Your task to perform on an android device: Open Youtube and go to the subscriptions tab Image 0: 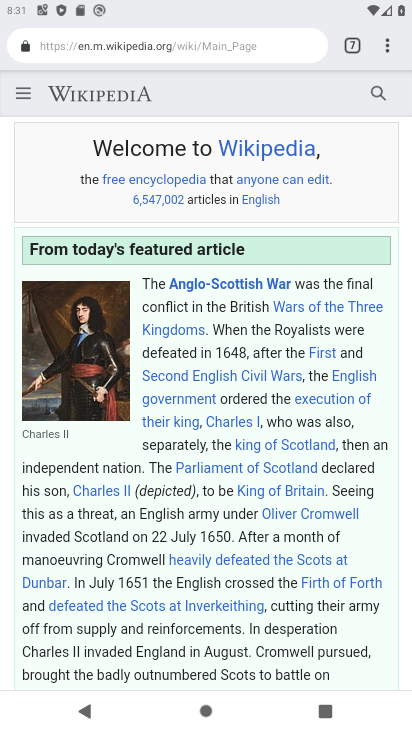
Step 0: press home button
Your task to perform on an android device: Open Youtube and go to the subscriptions tab Image 1: 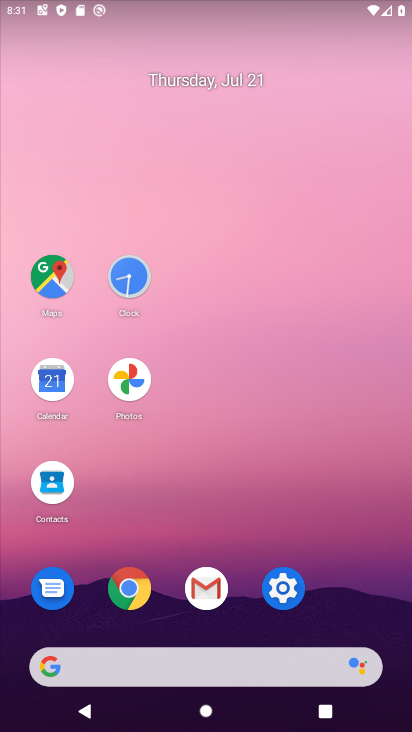
Step 1: drag from (235, 519) to (232, 105)
Your task to perform on an android device: Open Youtube and go to the subscriptions tab Image 2: 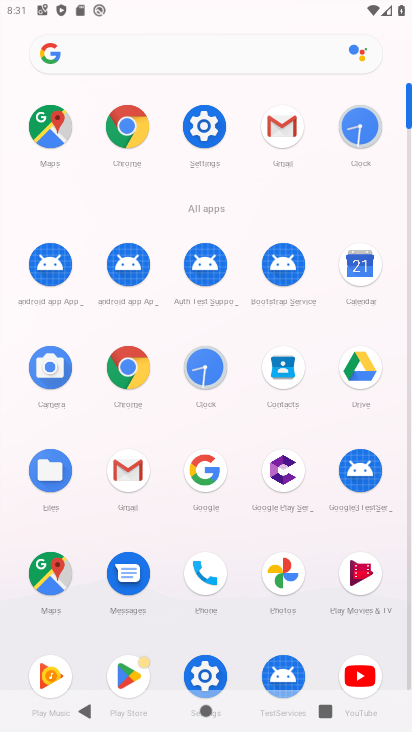
Step 2: click (354, 671)
Your task to perform on an android device: Open Youtube and go to the subscriptions tab Image 3: 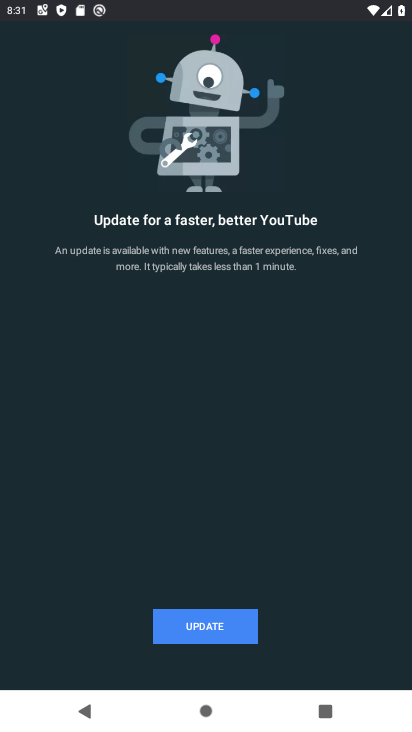
Step 3: click (214, 625)
Your task to perform on an android device: Open Youtube and go to the subscriptions tab Image 4: 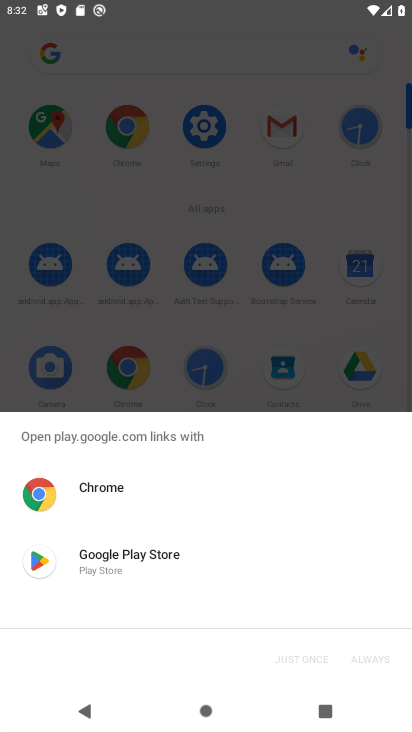
Step 4: click (113, 552)
Your task to perform on an android device: Open Youtube and go to the subscriptions tab Image 5: 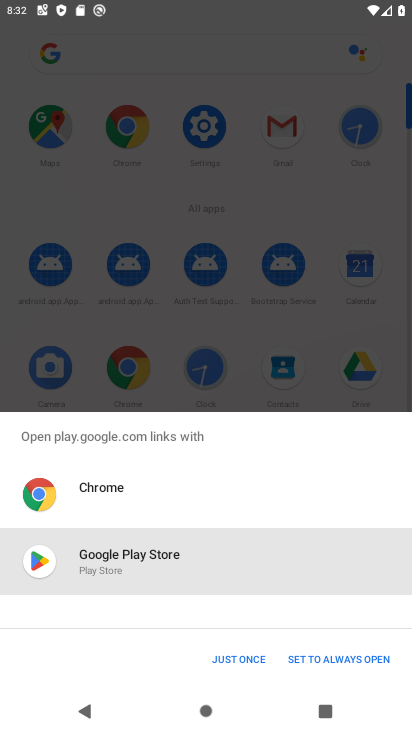
Step 5: click (236, 656)
Your task to perform on an android device: Open Youtube and go to the subscriptions tab Image 6: 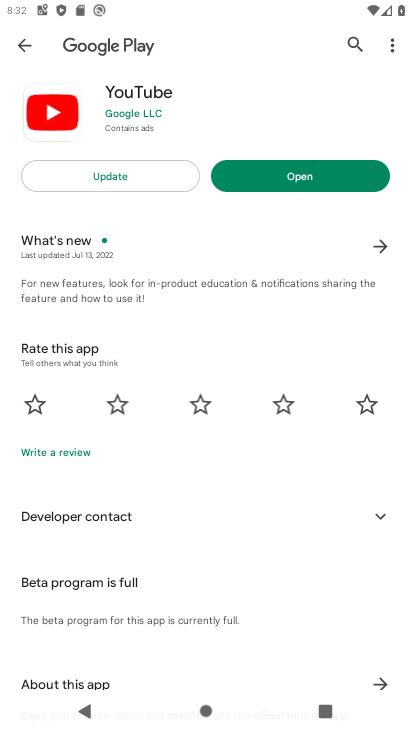
Step 6: click (124, 174)
Your task to perform on an android device: Open Youtube and go to the subscriptions tab Image 7: 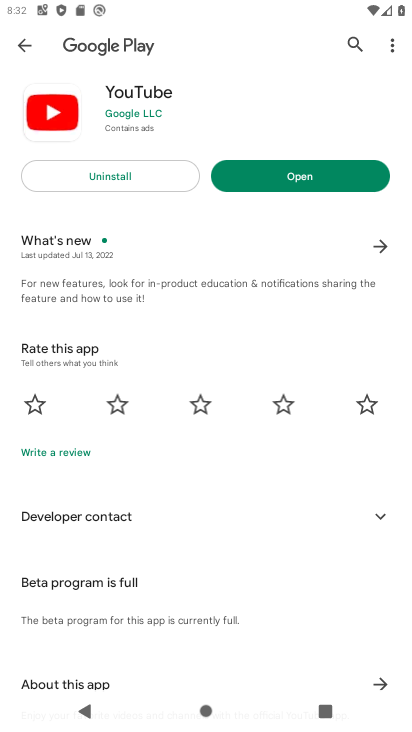
Step 7: click (251, 180)
Your task to perform on an android device: Open Youtube and go to the subscriptions tab Image 8: 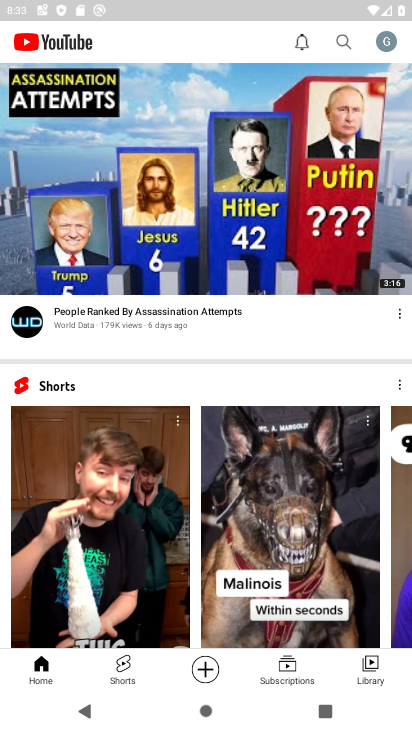
Step 8: click (278, 674)
Your task to perform on an android device: Open Youtube and go to the subscriptions tab Image 9: 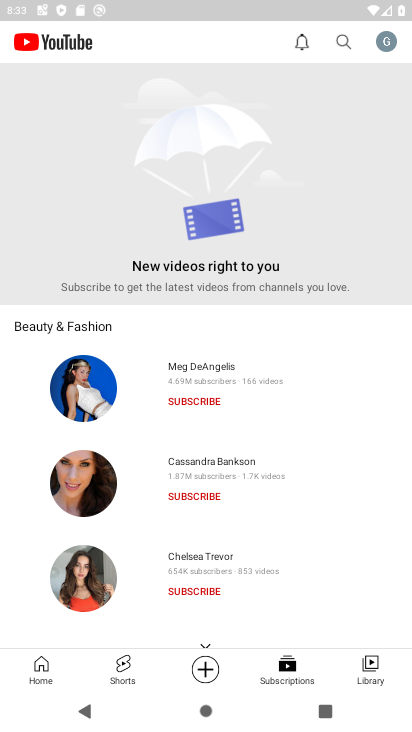
Step 9: task complete